Your task to perform on an android device: change the clock display to digital Image 0: 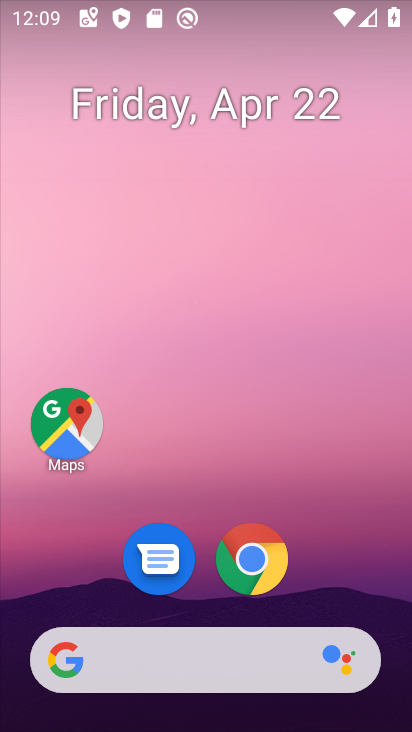
Step 0: drag from (273, 467) to (242, 213)
Your task to perform on an android device: change the clock display to digital Image 1: 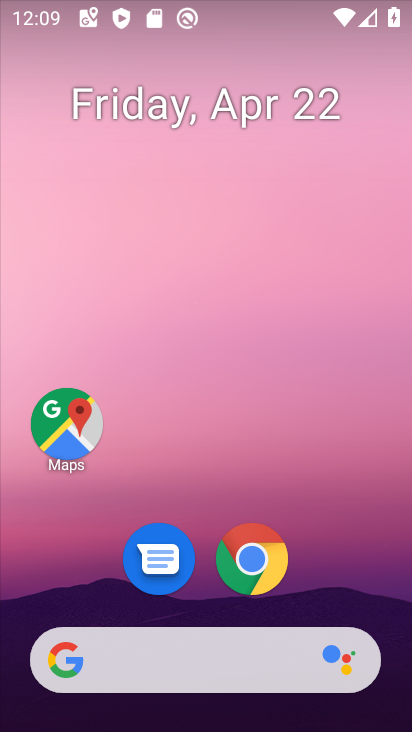
Step 1: drag from (308, 582) to (231, 138)
Your task to perform on an android device: change the clock display to digital Image 2: 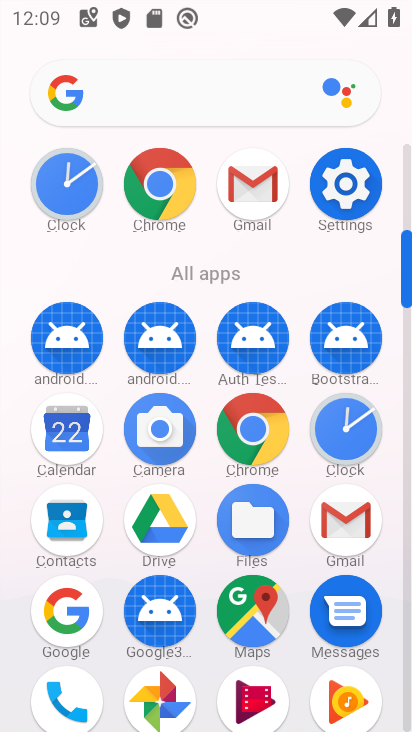
Step 2: click (326, 193)
Your task to perform on an android device: change the clock display to digital Image 3: 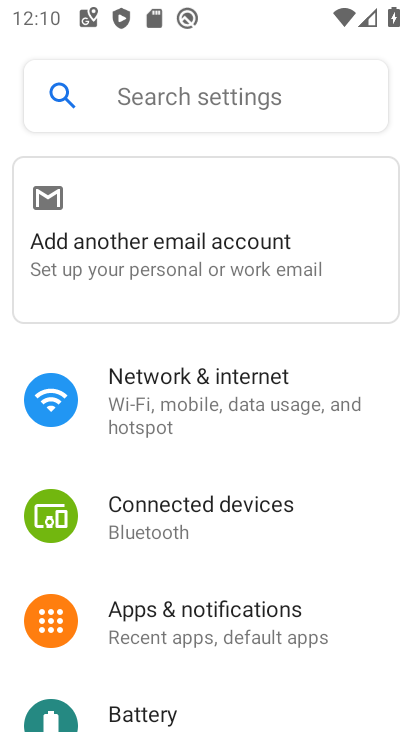
Step 3: drag from (186, 590) to (211, 280)
Your task to perform on an android device: change the clock display to digital Image 4: 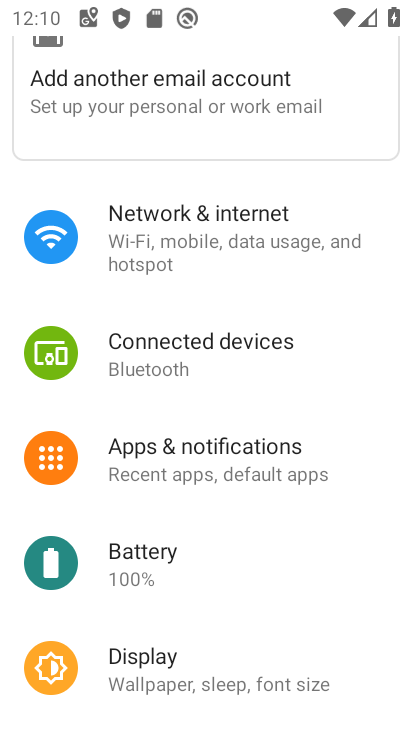
Step 4: drag from (181, 634) to (199, 365)
Your task to perform on an android device: change the clock display to digital Image 5: 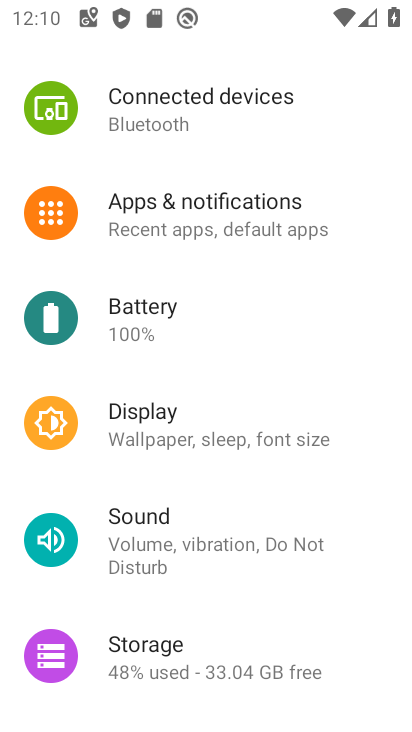
Step 5: click (138, 563)
Your task to perform on an android device: change the clock display to digital Image 6: 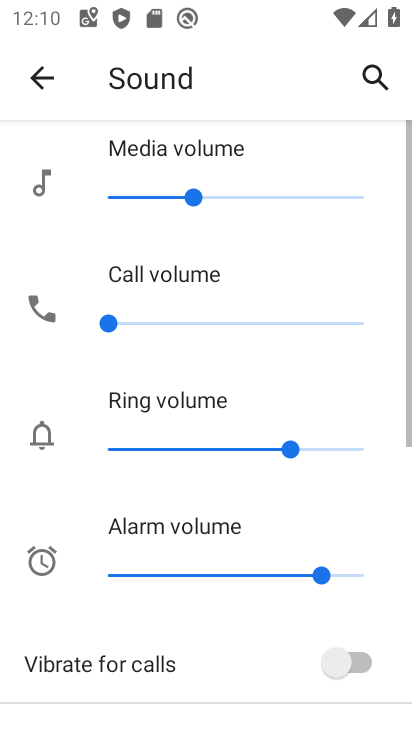
Step 6: task complete